Your task to perform on an android device: find which apps use the phone's location Image 0: 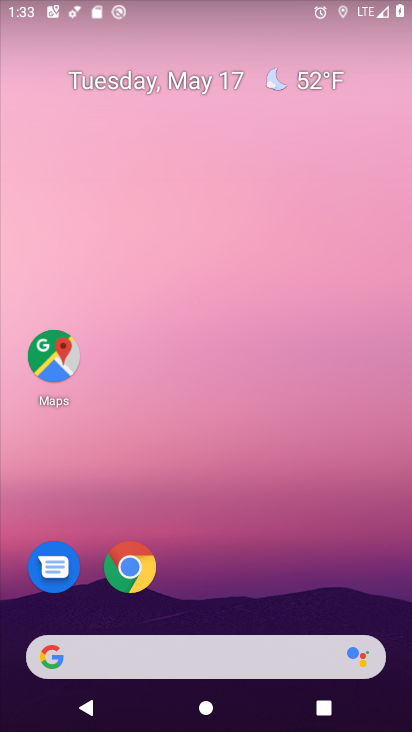
Step 0: drag from (221, 590) to (310, 0)
Your task to perform on an android device: find which apps use the phone's location Image 1: 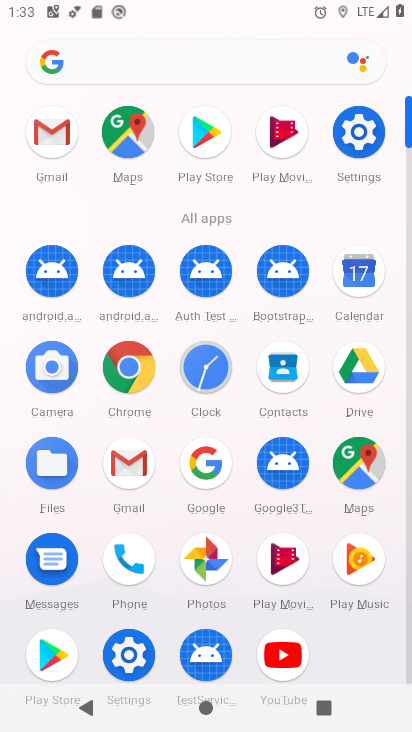
Step 1: click (349, 133)
Your task to perform on an android device: find which apps use the phone's location Image 2: 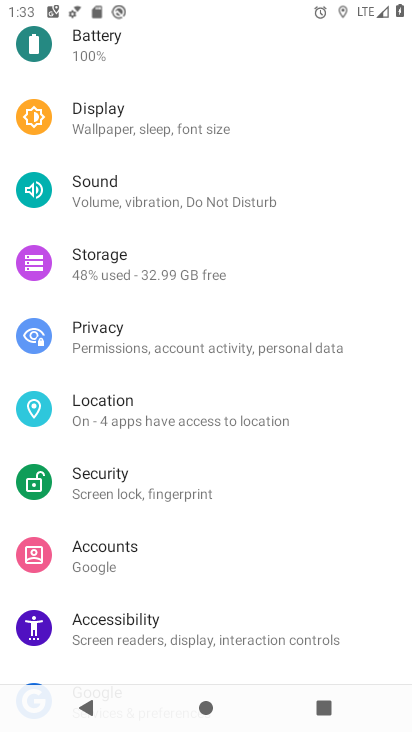
Step 2: drag from (148, 187) to (185, 723)
Your task to perform on an android device: find which apps use the phone's location Image 3: 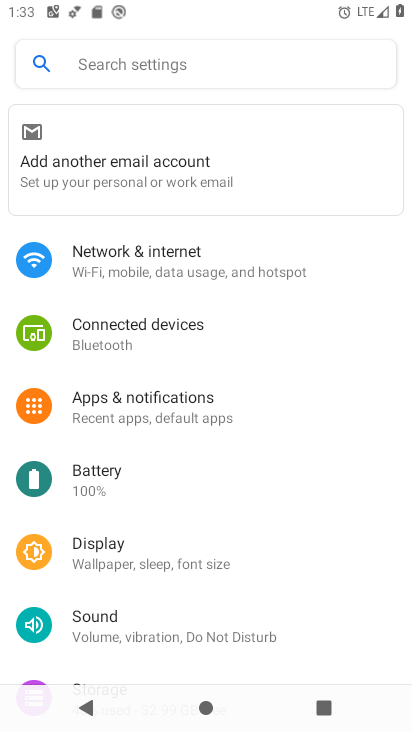
Step 3: drag from (100, 597) to (181, 216)
Your task to perform on an android device: find which apps use the phone's location Image 4: 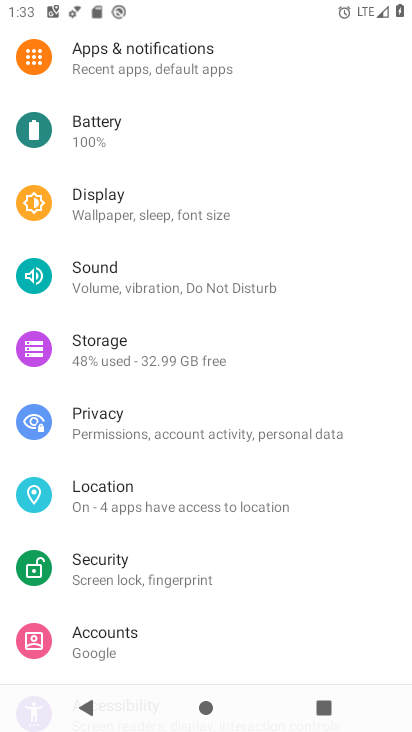
Step 4: drag from (173, 614) to (176, 232)
Your task to perform on an android device: find which apps use the phone's location Image 5: 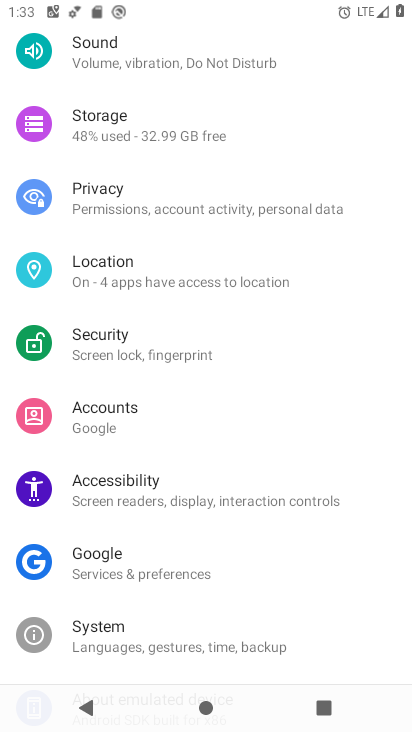
Step 5: click (107, 293)
Your task to perform on an android device: find which apps use the phone's location Image 6: 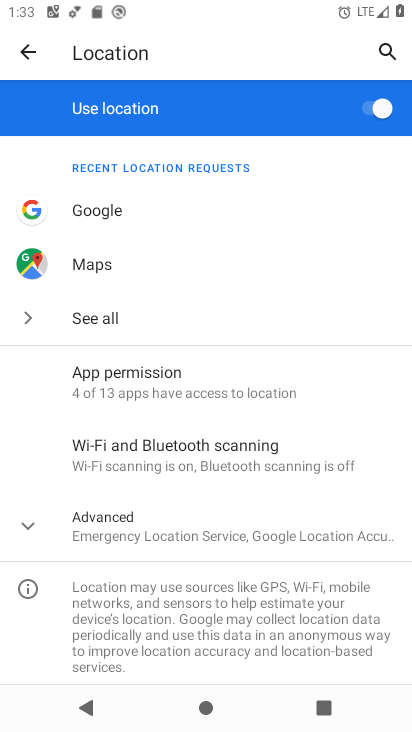
Step 6: click (134, 381)
Your task to perform on an android device: find which apps use the phone's location Image 7: 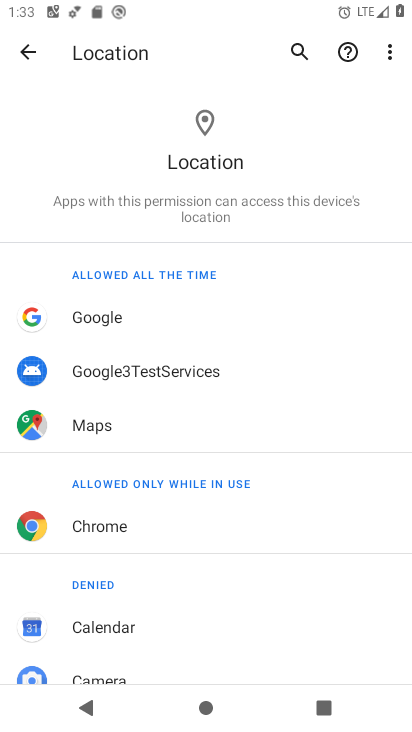
Step 7: task complete